Your task to perform on an android device: toggle sleep mode Image 0: 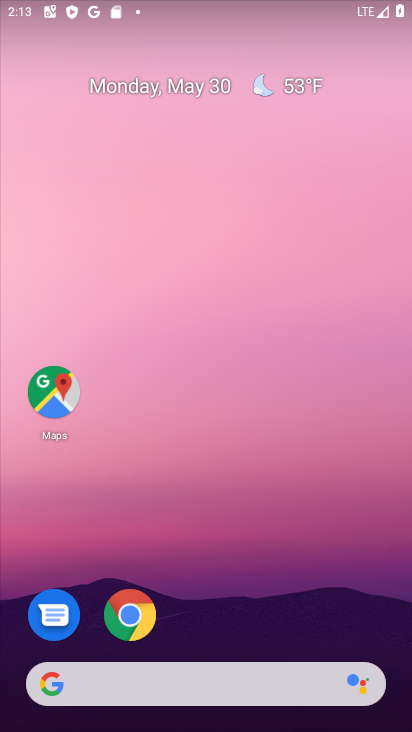
Step 0: drag from (276, 601) to (214, 167)
Your task to perform on an android device: toggle sleep mode Image 1: 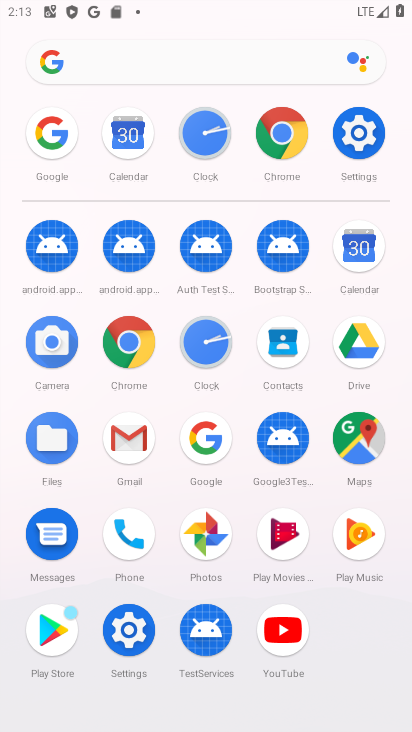
Step 1: drag from (348, 5) to (337, 645)
Your task to perform on an android device: toggle sleep mode Image 2: 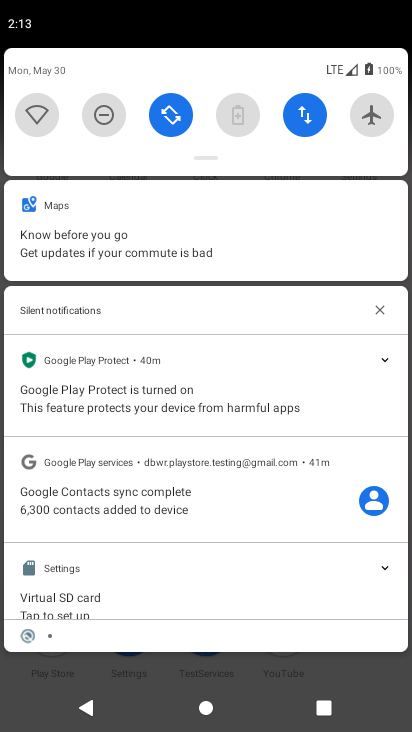
Step 2: drag from (206, 148) to (181, 645)
Your task to perform on an android device: toggle sleep mode Image 3: 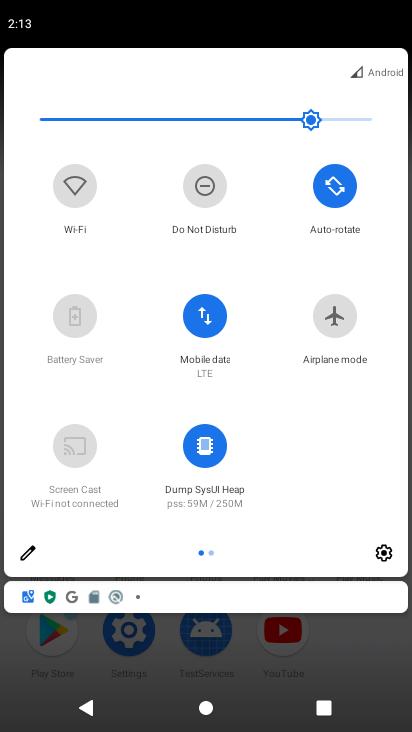
Step 3: click (28, 548)
Your task to perform on an android device: toggle sleep mode Image 4: 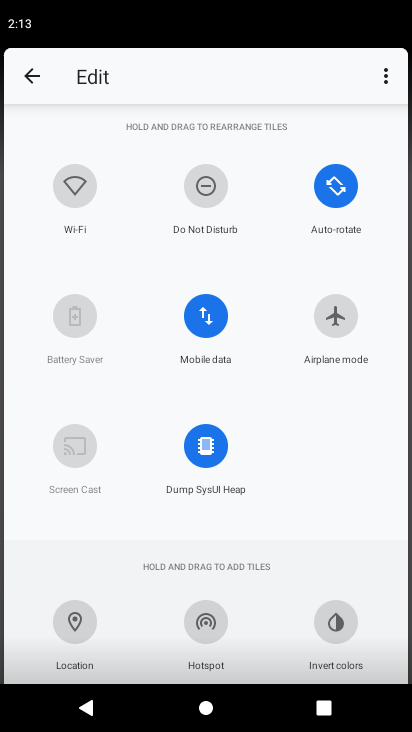
Step 4: task complete